Your task to perform on an android device: Go to settings Image 0: 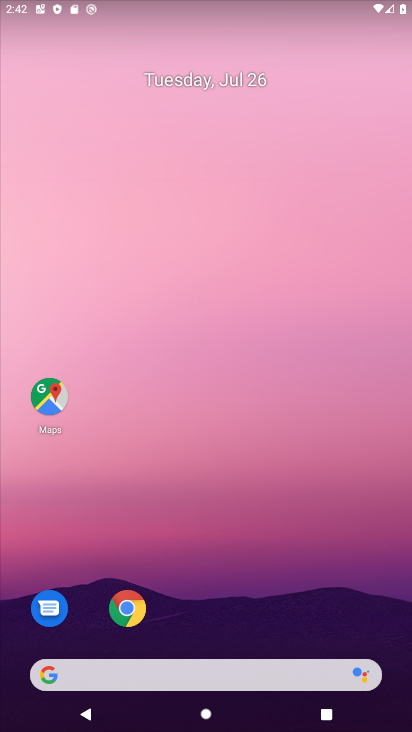
Step 0: drag from (301, 615) to (345, 154)
Your task to perform on an android device: Go to settings Image 1: 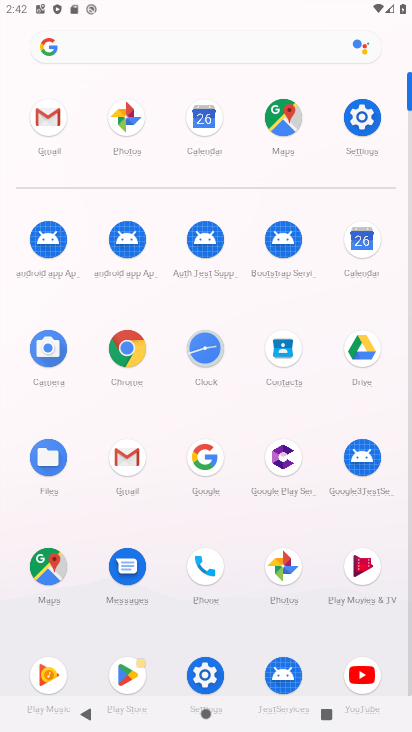
Step 1: click (365, 115)
Your task to perform on an android device: Go to settings Image 2: 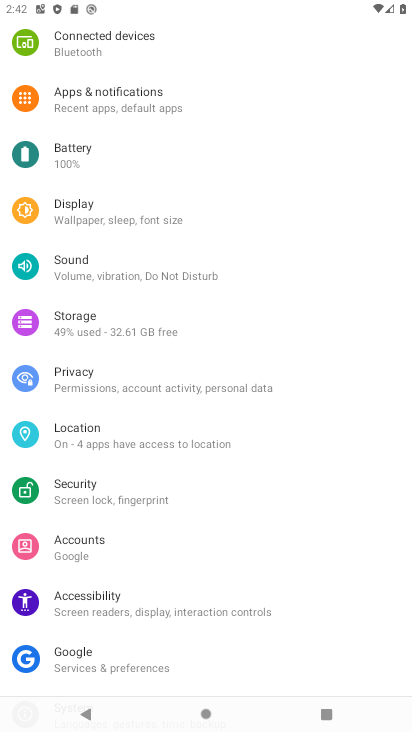
Step 2: task complete